Your task to perform on an android device: toggle sleep mode Image 0: 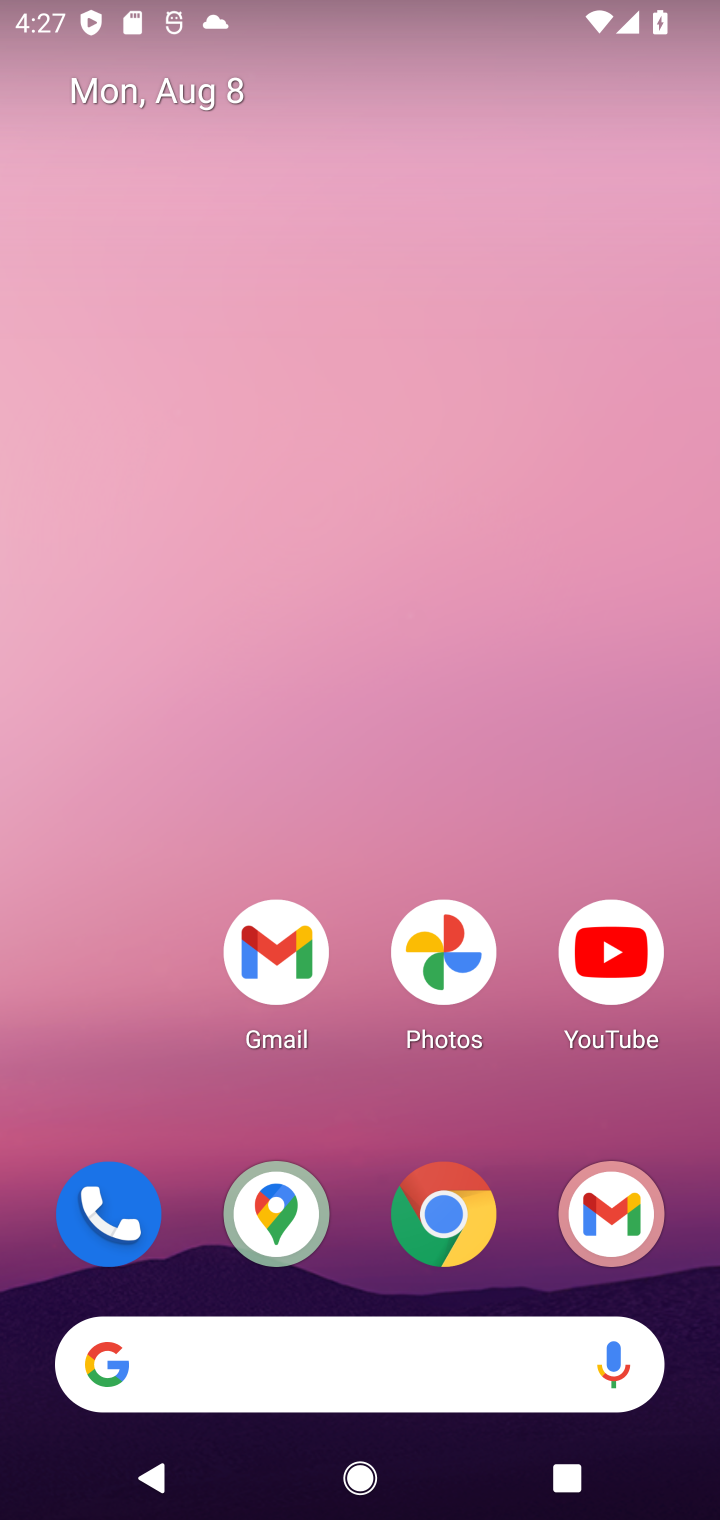
Step 0: drag from (359, 1223) to (74, 371)
Your task to perform on an android device: toggle sleep mode Image 1: 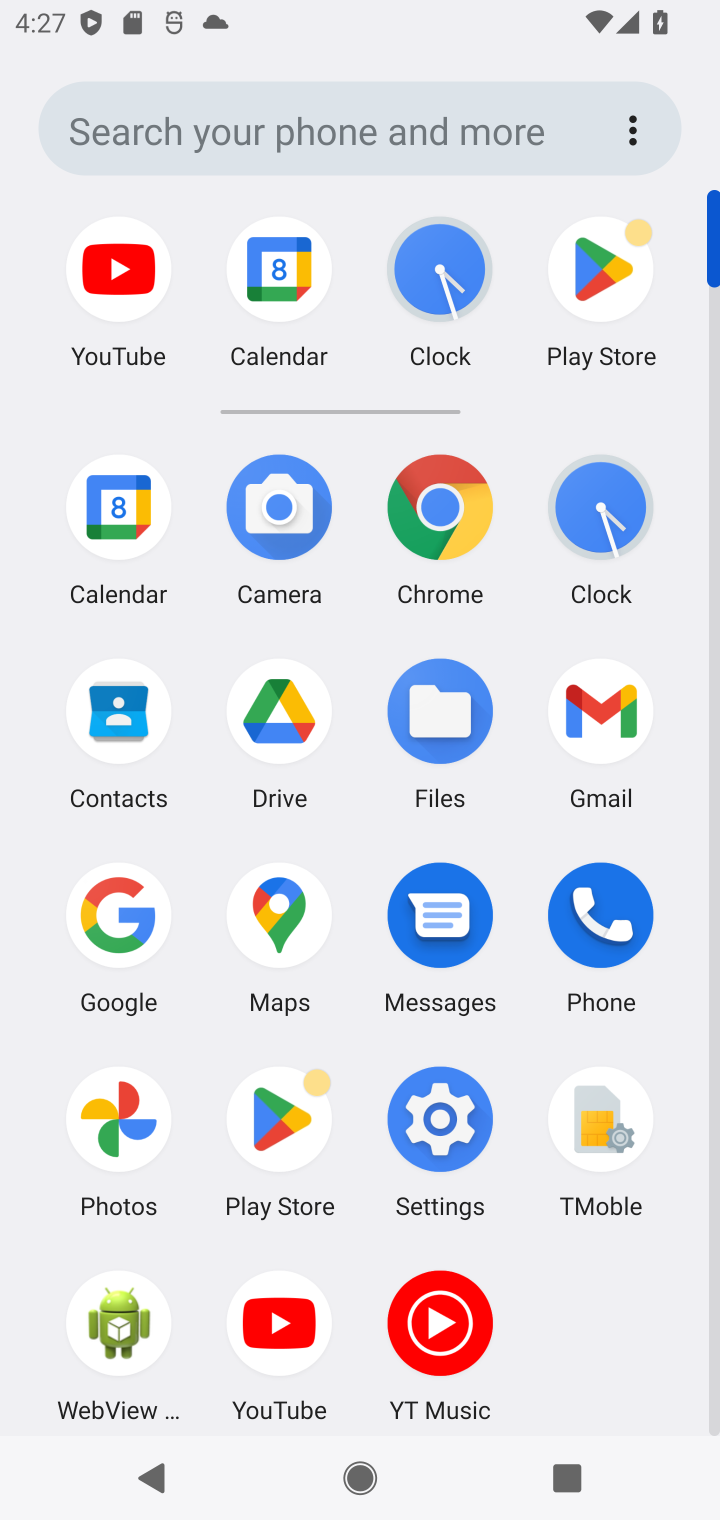
Step 1: click (430, 1110)
Your task to perform on an android device: toggle sleep mode Image 2: 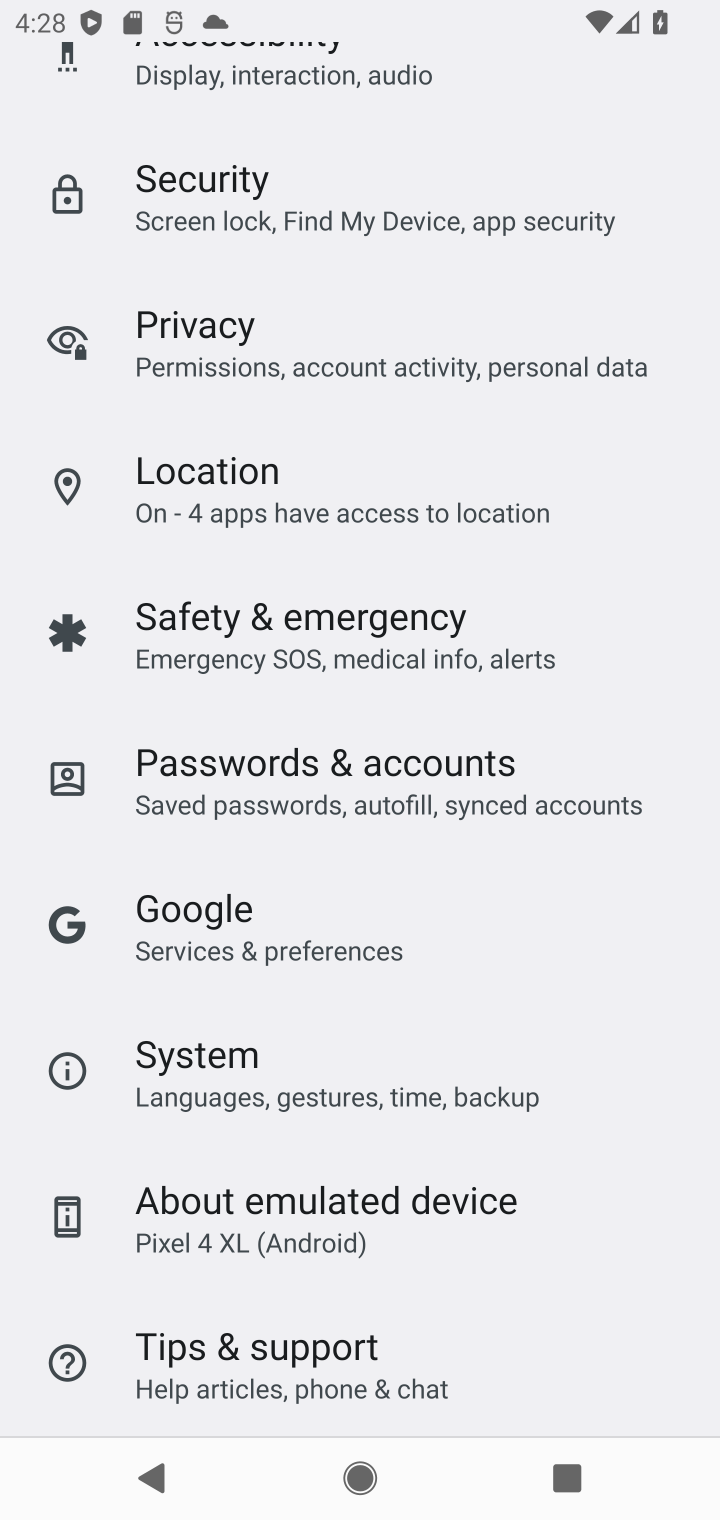
Step 2: task complete